Your task to perform on an android device: Go to accessibility settings Image 0: 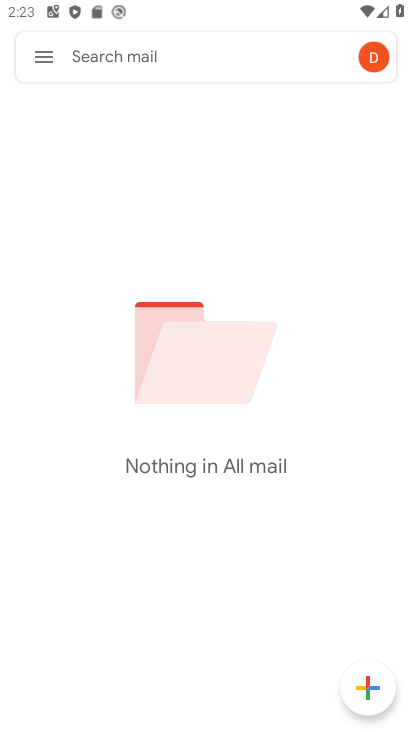
Step 0: press home button
Your task to perform on an android device: Go to accessibility settings Image 1: 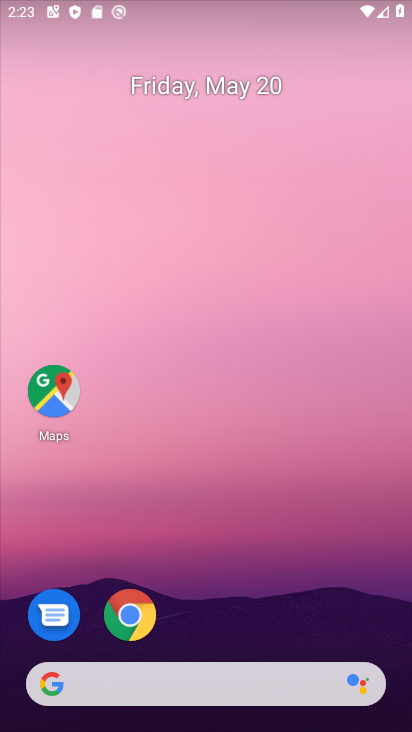
Step 1: drag from (163, 498) to (163, 221)
Your task to perform on an android device: Go to accessibility settings Image 2: 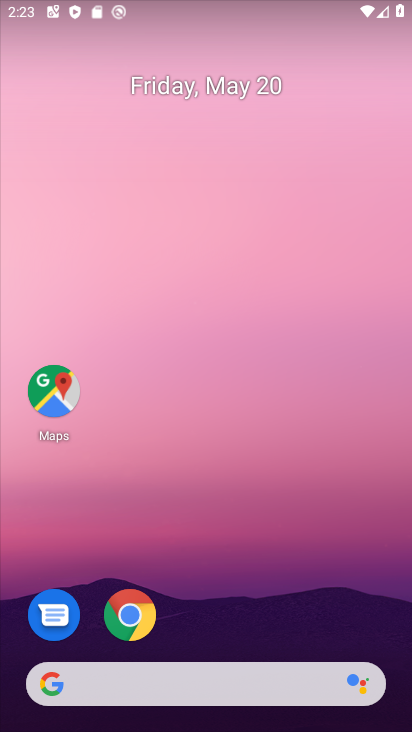
Step 2: drag from (270, 605) to (313, 239)
Your task to perform on an android device: Go to accessibility settings Image 3: 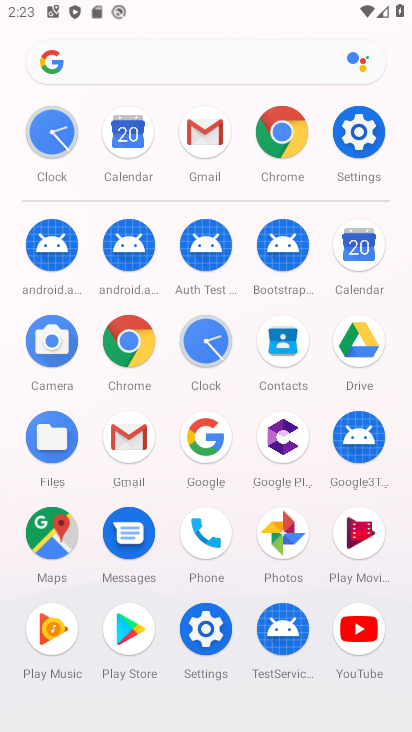
Step 3: click (386, 119)
Your task to perform on an android device: Go to accessibility settings Image 4: 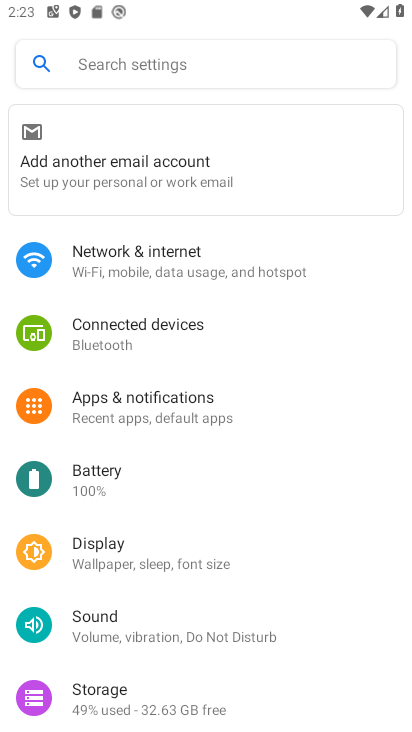
Step 4: drag from (187, 621) to (257, 172)
Your task to perform on an android device: Go to accessibility settings Image 5: 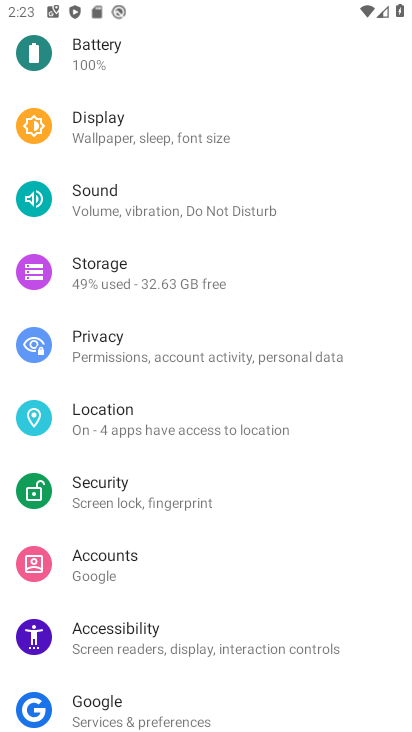
Step 5: click (155, 613)
Your task to perform on an android device: Go to accessibility settings Image 6: 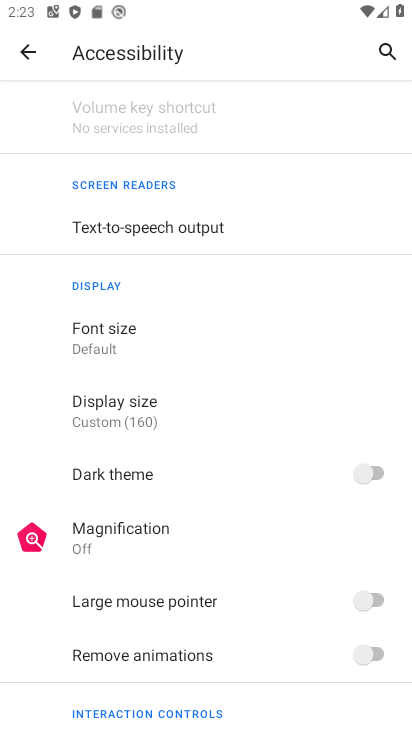
Step 6: task complete